Your task to perform on an android device: empty trash in the gmail app Image 0: 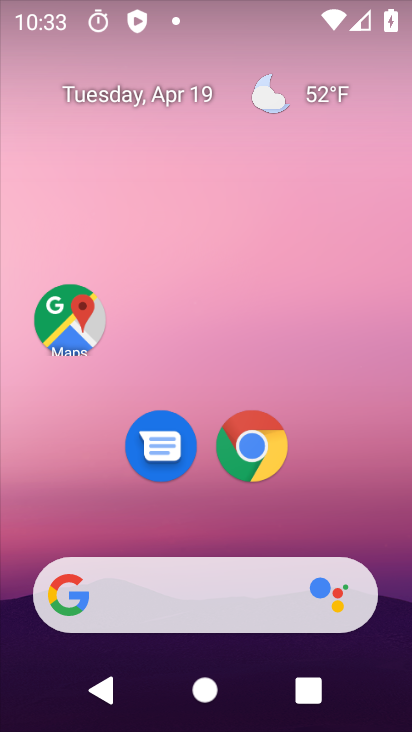
Step 0: drag from (382, 507) to (363, 169)
Your task to perform on an android device: empty trash in the gmail app Image 1: 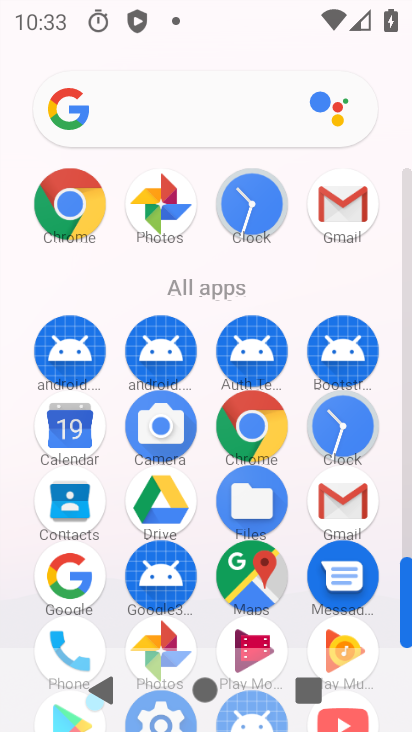
Step 1: click (351, 223)
Your task to perform on an android device: empty trash in the gmail app Image 2: 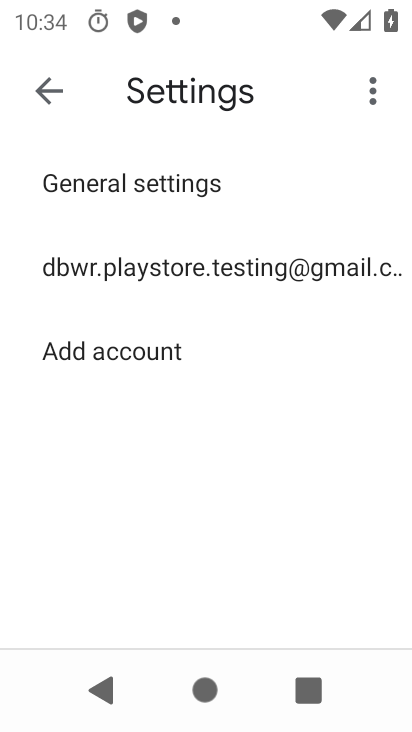
Step 2: click (99, 263)
Your task to perform on an android device: empty trash in the gmail app Image 3: 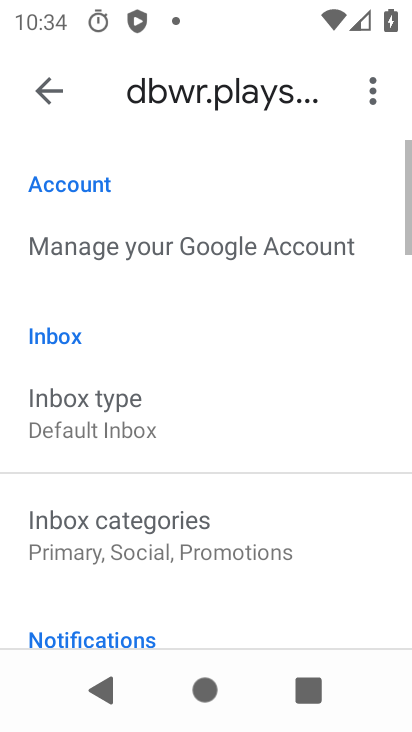
Step 3: click (37, 95)
Your task to perform on an android device: empty trash in the gmail app Image 4: 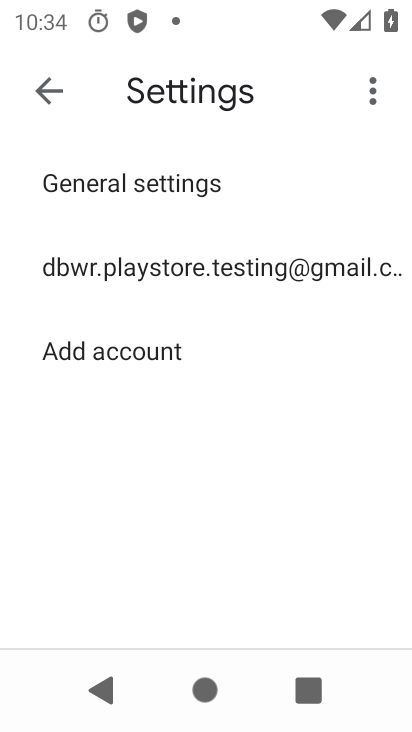
Step 4: click (37, 95)
Your task to perform on an android device: empty trash in the gmail app Image 5: 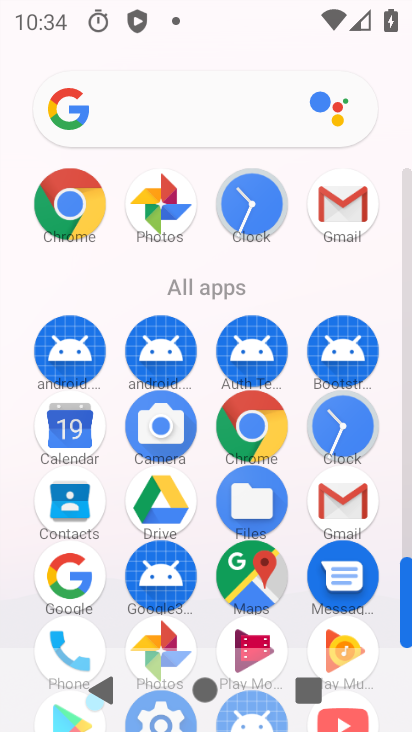
Step 5: drag from (403, 553) to (409, 348)
Your task to perform on an android device: empty trash in the gmail app Image 6: 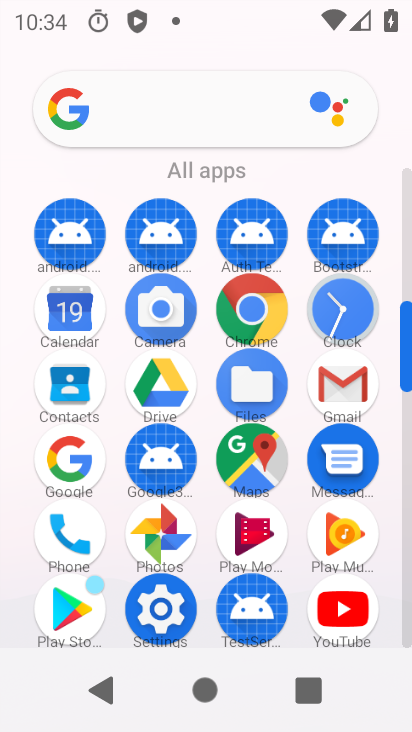
Step 6: click (339, 380)
Your task to perform on an android device: empty trash in the gmail app Image 7: 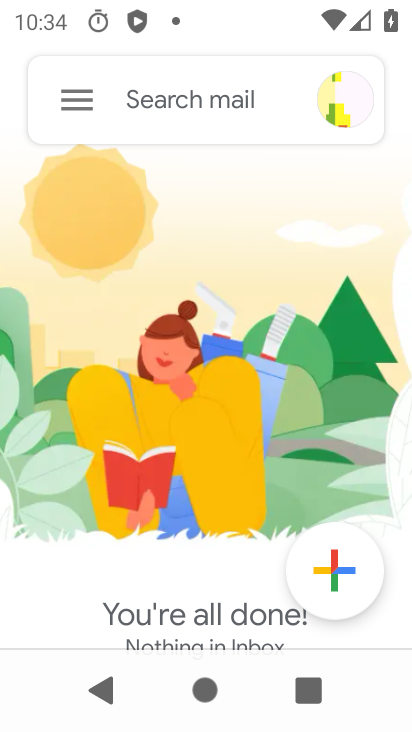
Step 7: click (75, 101)
Your task to perform on an android device: empty trash in the gmail app Image 8: 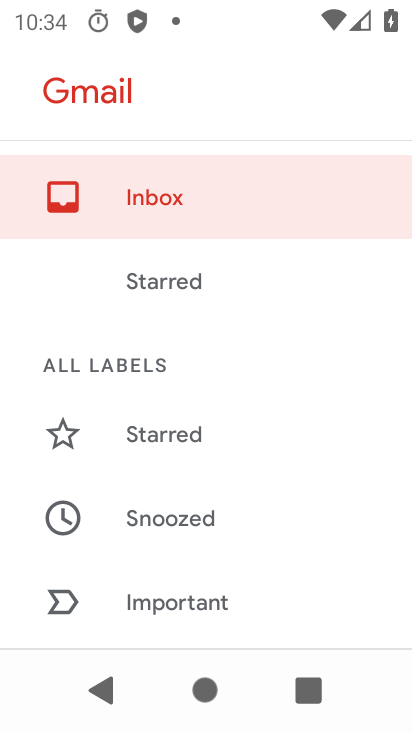
Step 8: drag from (331, 318) to (331, 251)
Your task to perform on an android device: empty trash in the gmail app Image 9: 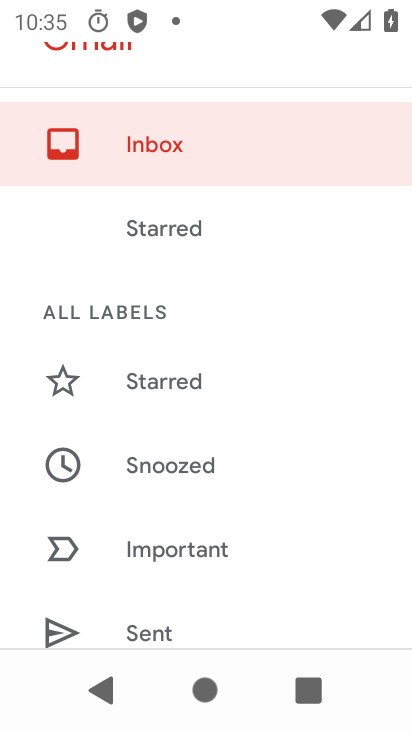
Step 9: drag from (331, 474) to (317, 298)
Your task to perform on an android device: empty trash in the gmail app Image 10: 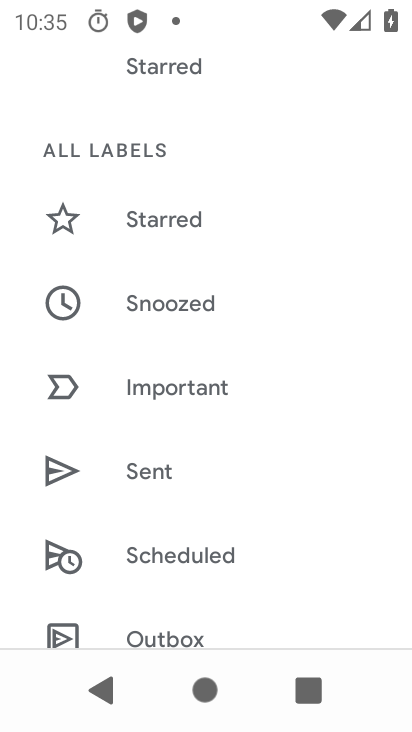
Step 10: drag from (314, 456) to (307, 230)
Your task to perform on an android device: empty trash in the gmail app Image 11: 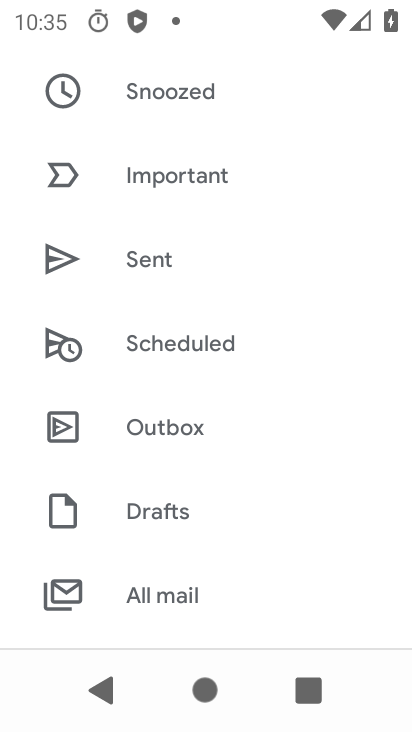
Step 11: drag from (304, 265) to (306, 203)
Your task to perform on an android device: empty trash in the gmail app Image 12: 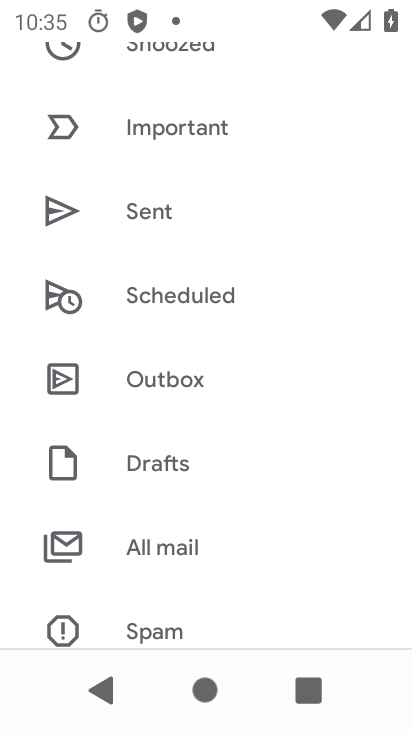
Step 12: drag from (290, 407) to (304, 183)
Your task to perform on an android device: empty trash in the gmail app Image 13: 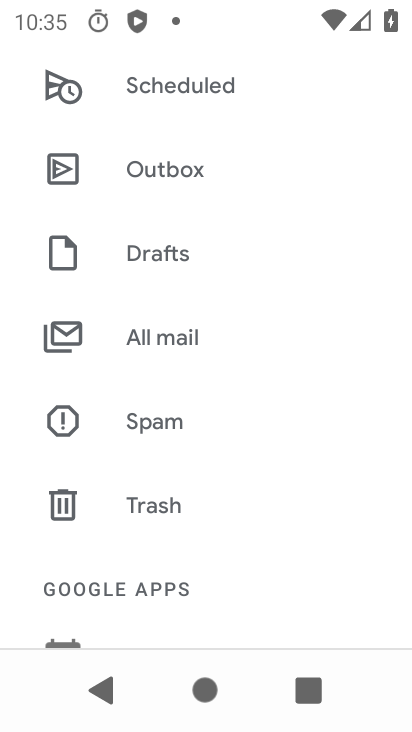
Step 13: click (84, 500)
Your task to perform on an android device: empty trash in the gmail app Image 14: 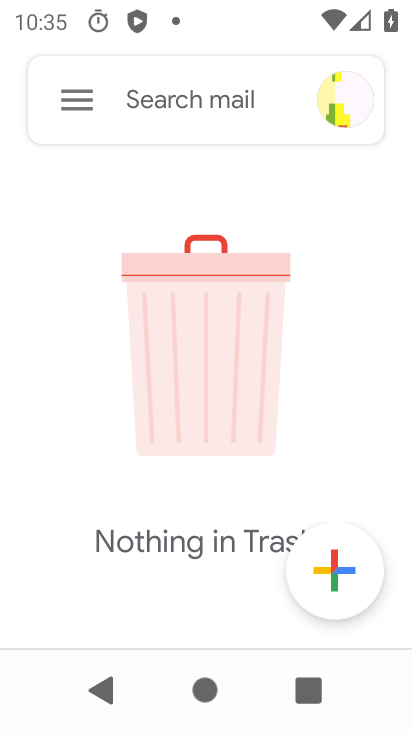
Step 14: task complete